Your task to perform on an android device: Open Google Chrome Image 0: 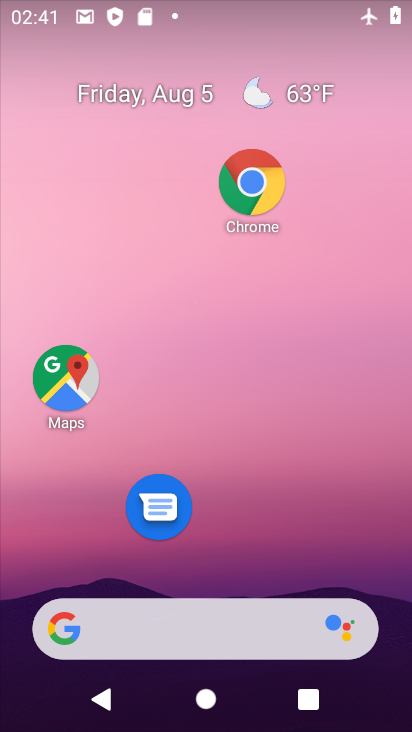
Step 0: click (260, 223)
Your task to perform on an android device: Open Google Chrome Image 1: 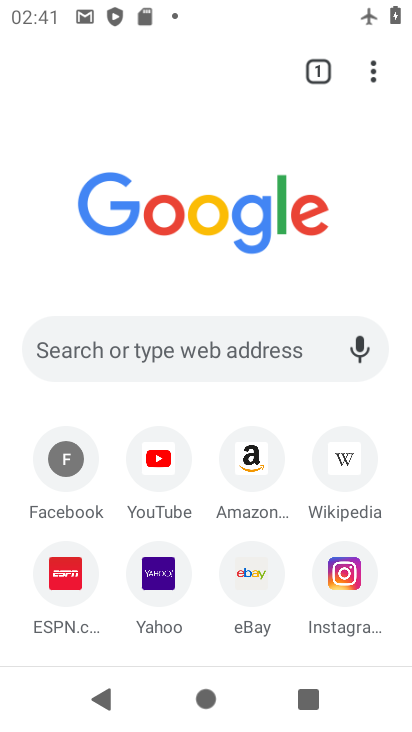
Step 1: task complete